Your task to perform on an android device: install app "Pandora - Music & Podcasts" Image 0: 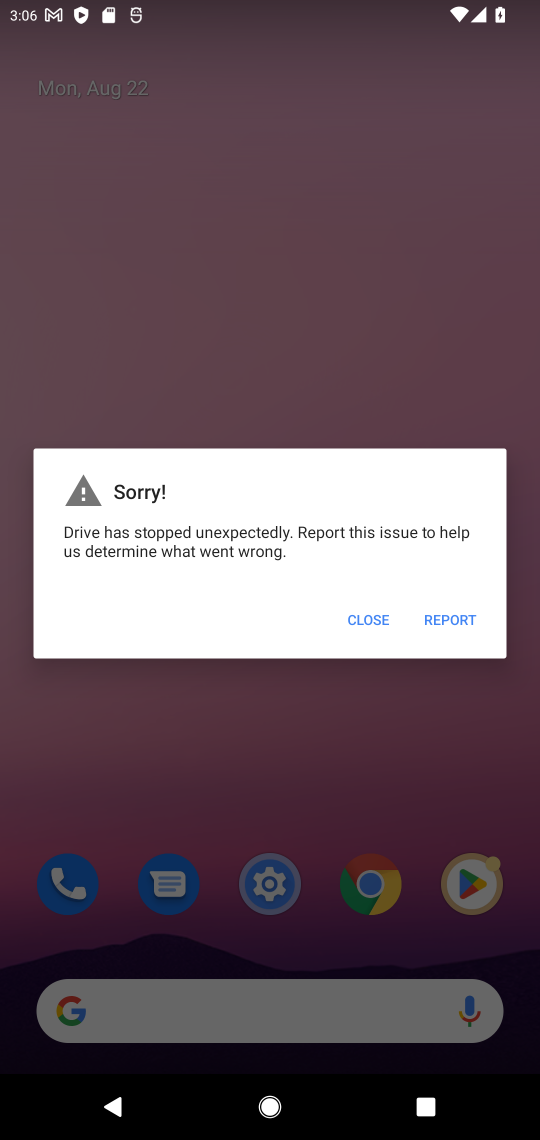
Step 0: click (360, 608)
Your task to perform on an android device: install app "Pandora - Music & Podcasts" Image 1: 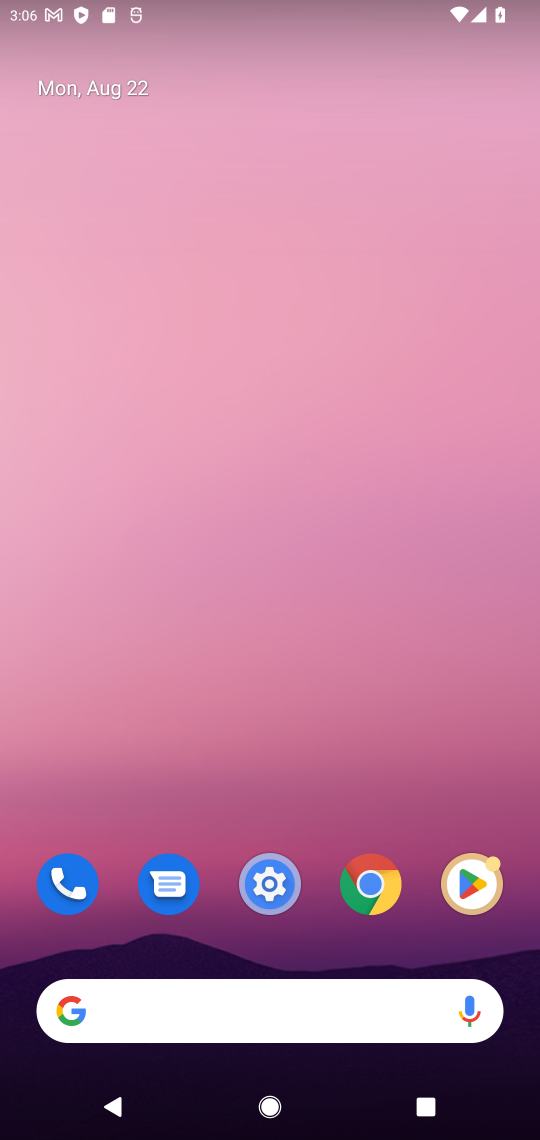
Step 1: click (461, 895)
Your task to perform on an android device: install app "Pandora - Music & Podcasts" Image 2: 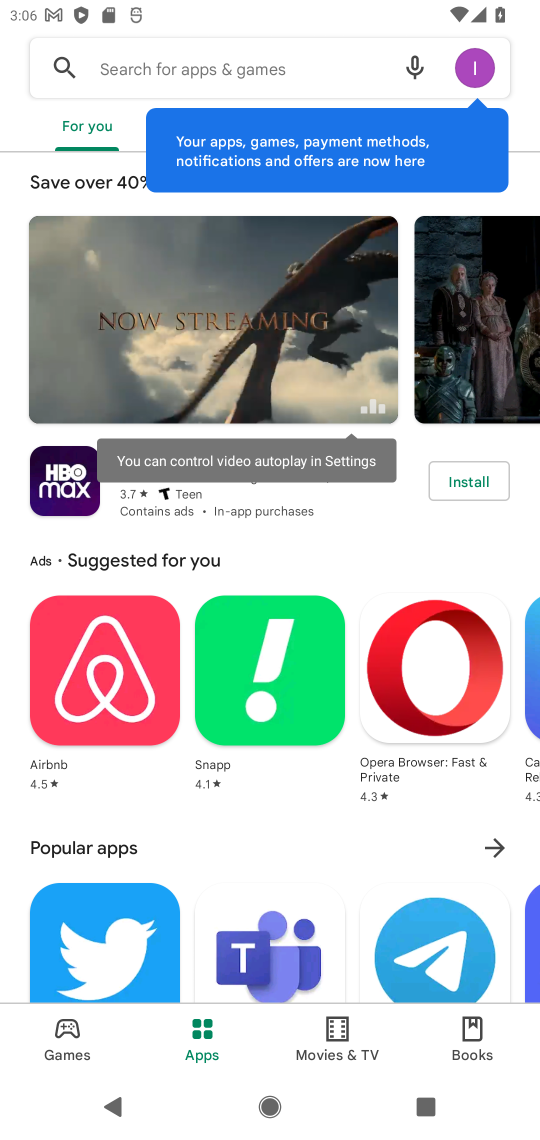
Step 2: click (245, 52)
Your task to perform on an android device: install app "Pandora - Music & Podcasts" Image 3: 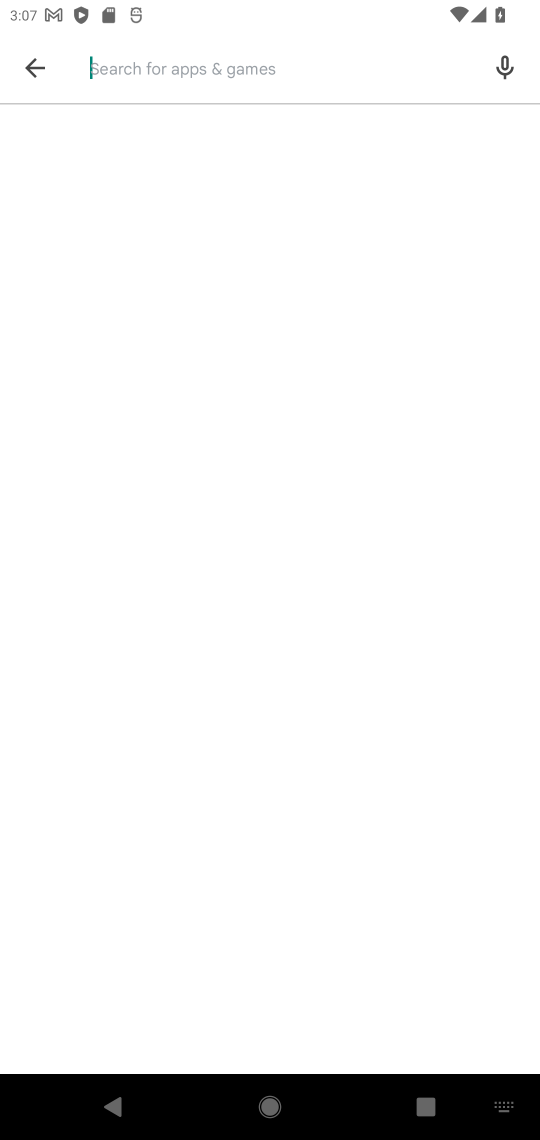
Step 3: type "Pandora"
Your task to perform on an android device: install app "Pandora - Music & Podcasts" Image 4: 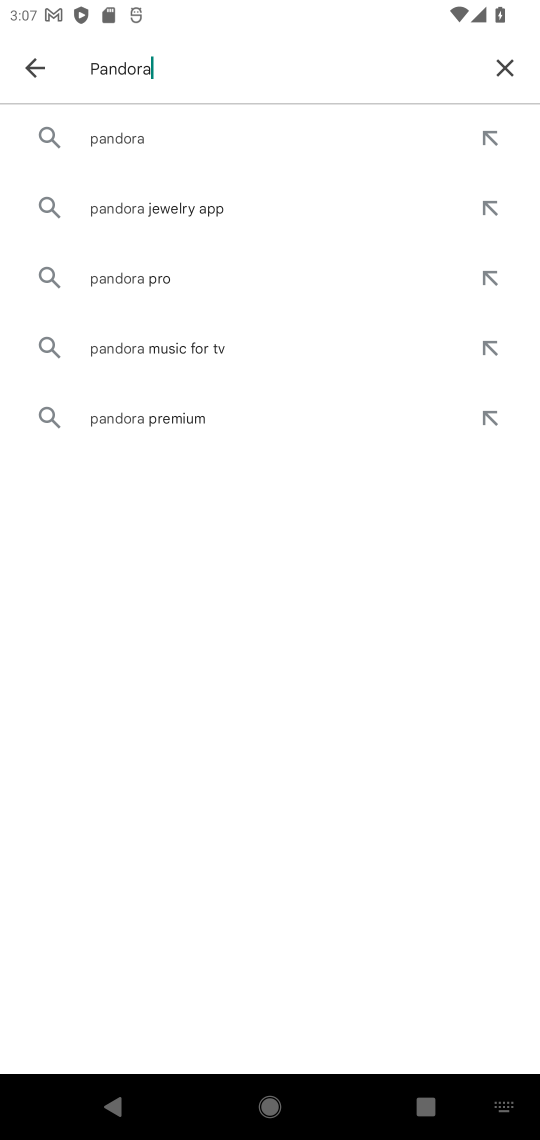
Step 4: click (153, 164)
Your task to perform on an android device: install app "Pandora - Music & Podcasts" Image 5: 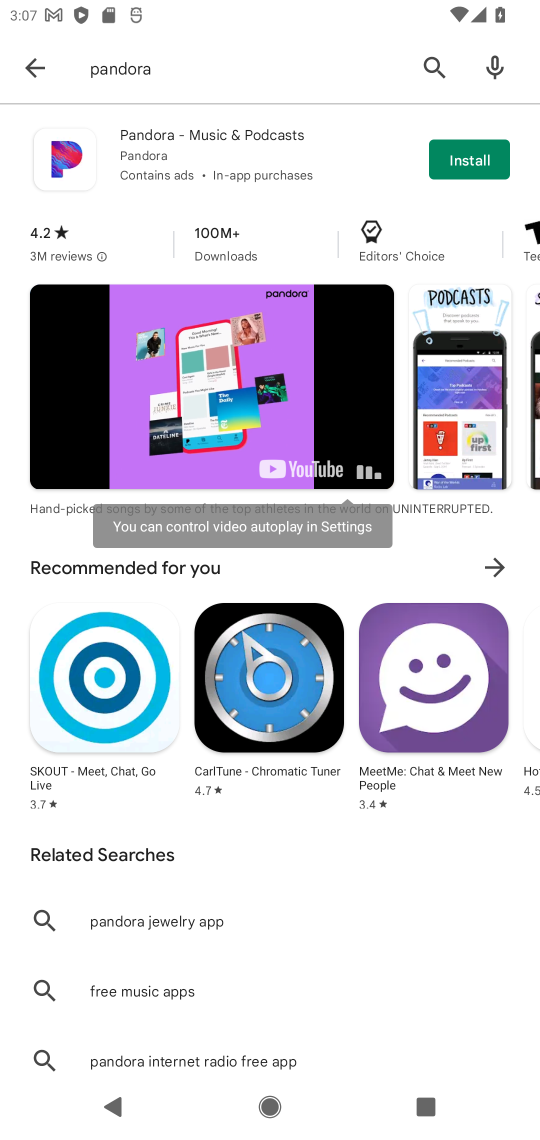
Step 5: click (476, 164)
Your task to perform on an android device: install app "Pandora - Music & Podcasts" Image 6: 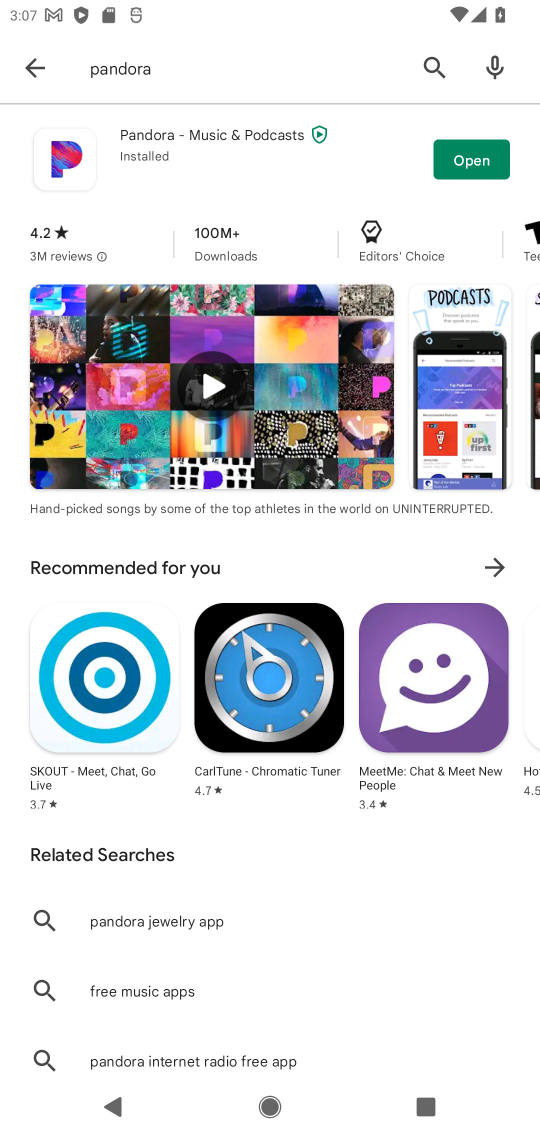
Step 6: task complete